Your task to perform on an android device: change the clock style Image 0: 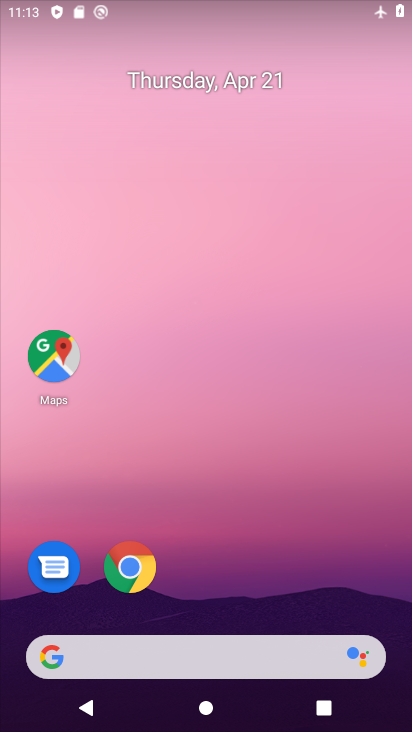
Step 0: drag from (225, 515) to (314, 4)
Your task to perform on an android device: change the clock style Image 1: 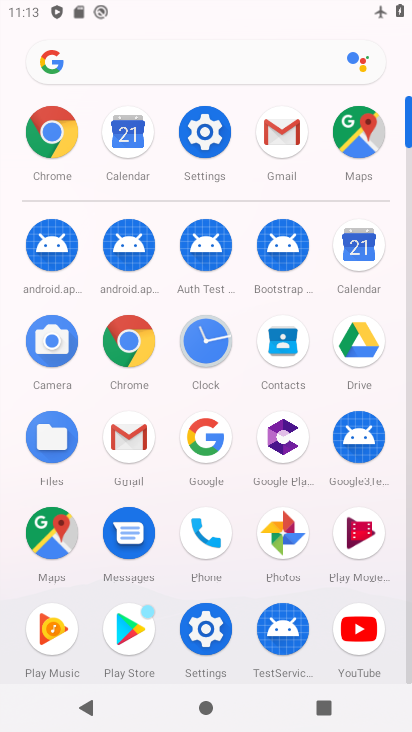
Step 1: click (207, 339)
Your task to perform on an android device: change the clock style Image 2: 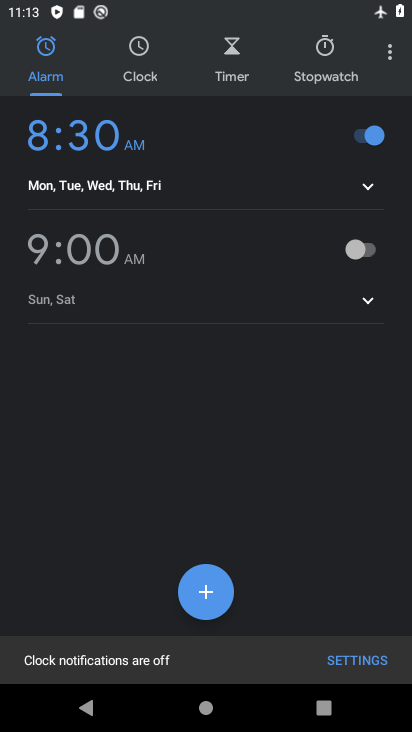
Step 2: click (390, 62)
Your task to perform on an android device: change the clock style Image 3: 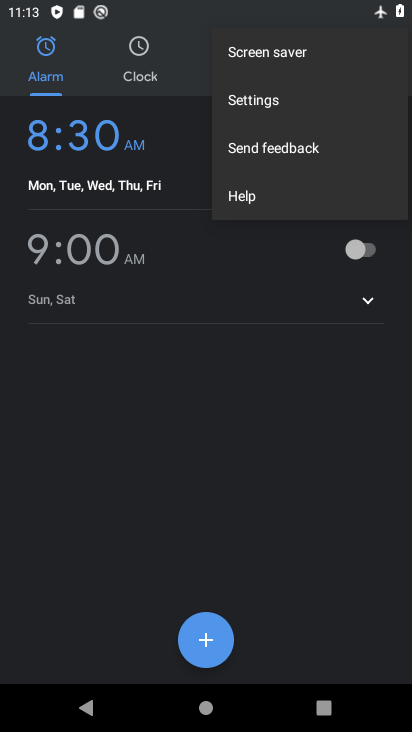
Step 3: click (271, 103)
Your task to perform on an android device: change the clock style Image 4: 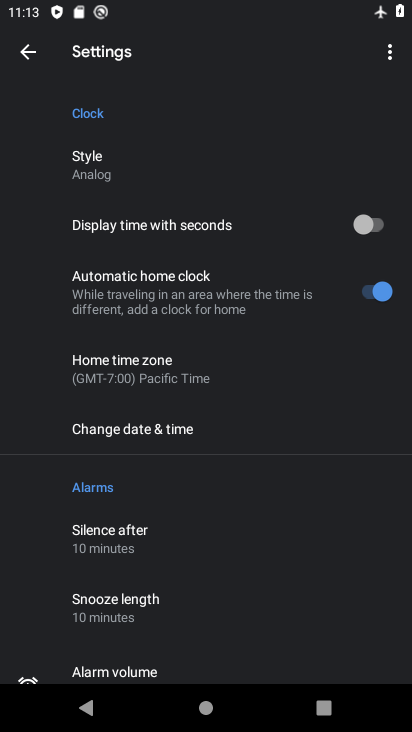
Step 4: click (100, 171)
Your task to perform on an android device: change the clock style Image 5: 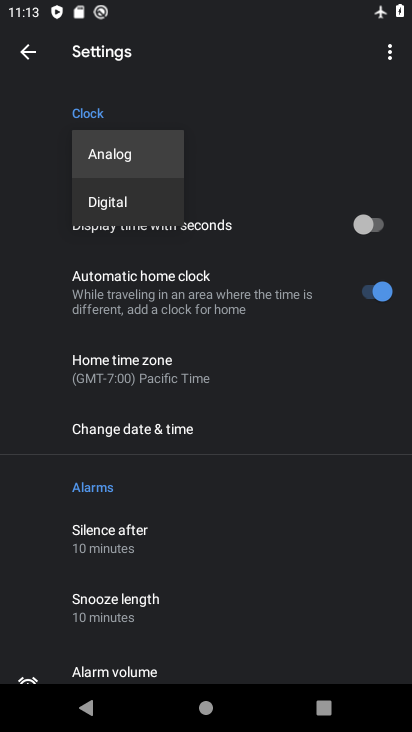
Step 5: click (136, 196)
Your task to perform on an android device: change the clock style Image 6: 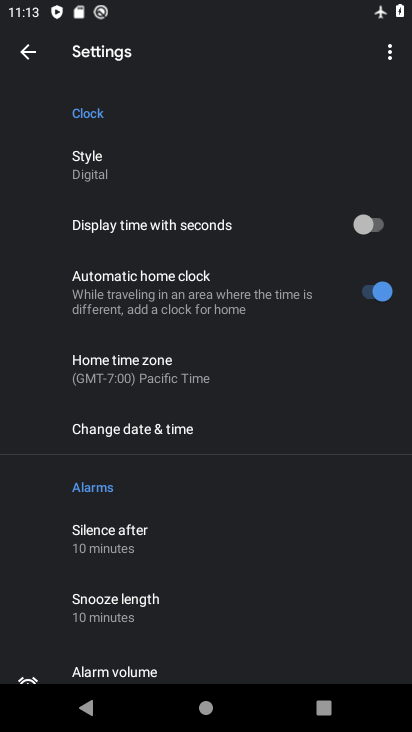
Step 6: task complete